Your task to perform on an android device: Search for the best websites on the internet Image 0: 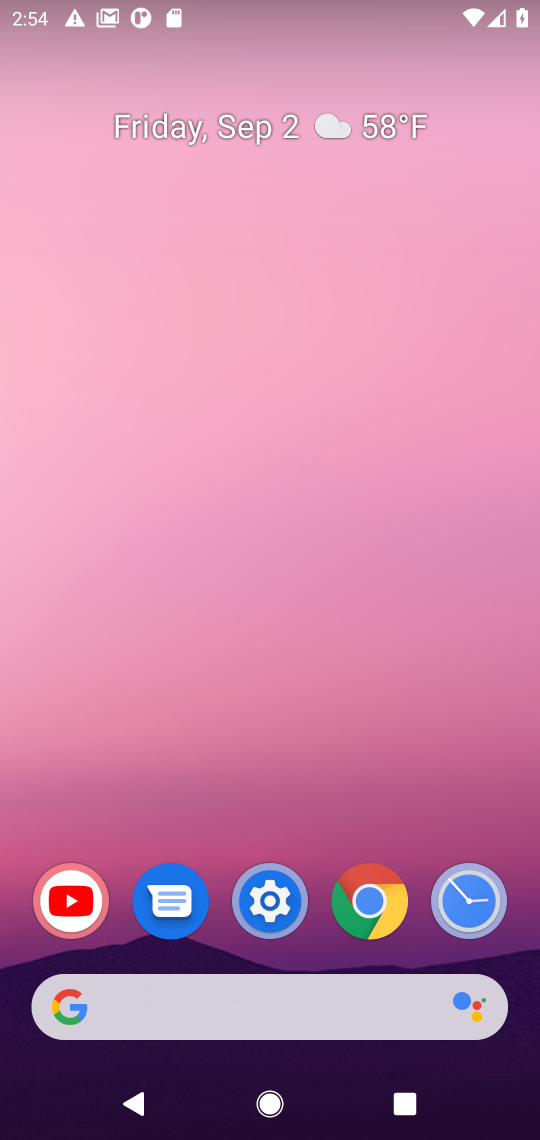
Step 0: drag from (279, 787) to (416, 0)
Your task to perform on an android device: Search for the best websites on the internet Image 1: 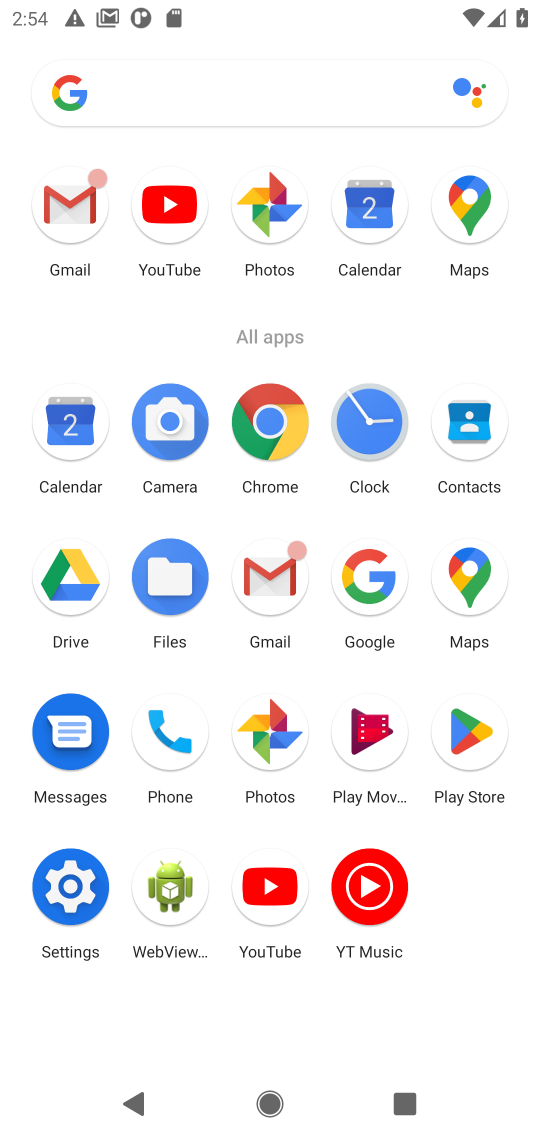
Step 1: click (255, 417)
Your task to perform on an android device: Search for the best websites on the internet Image 2: 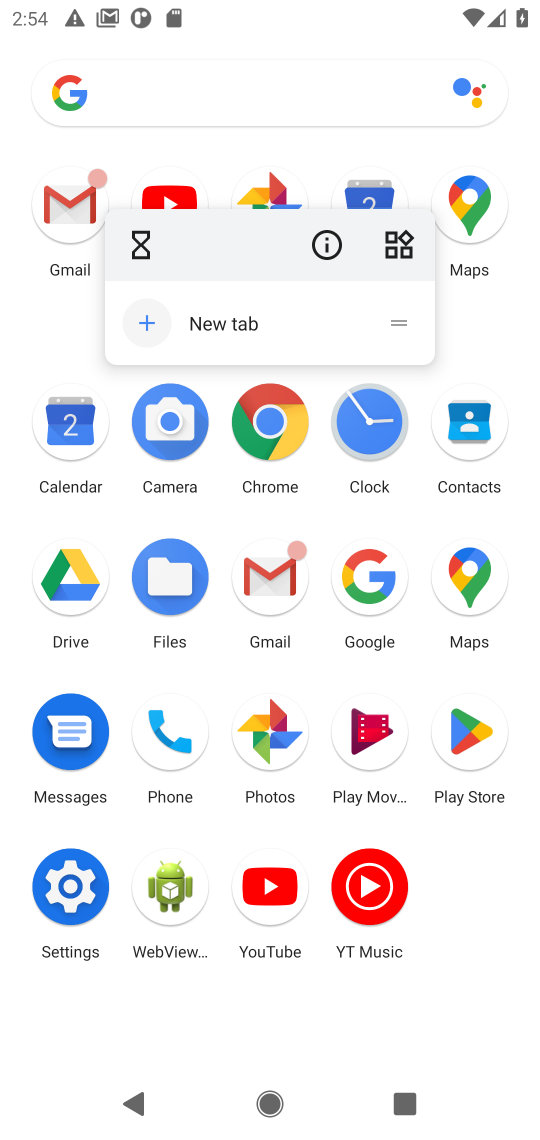
Step 2: click (280, 422)
Your task to perform on an android device: Search for the best websites on the internet Image 3: 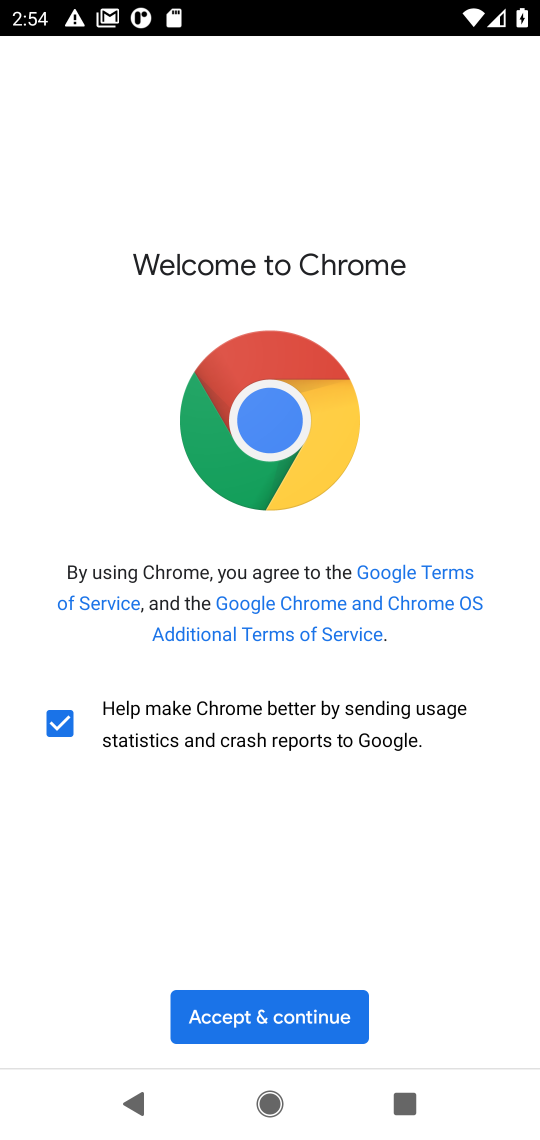
Step 3: click (313, 1012)
Your task to perform on an android device: Search for the best websites on the internet Image 4: 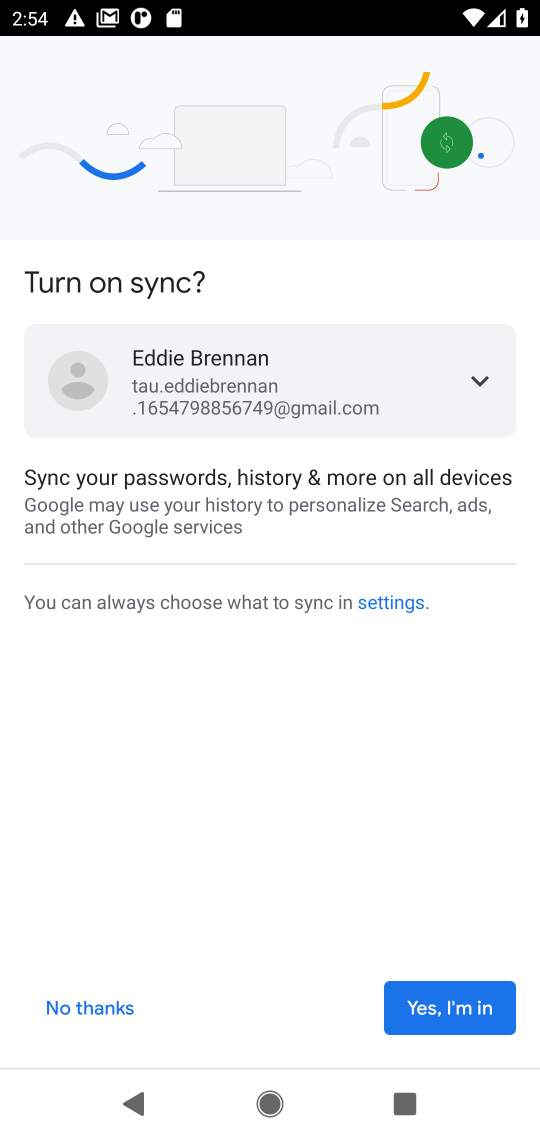
Step 4: click (480, 999)
Your task to perform on an android device: Search for the best websites on the internet Image 5: 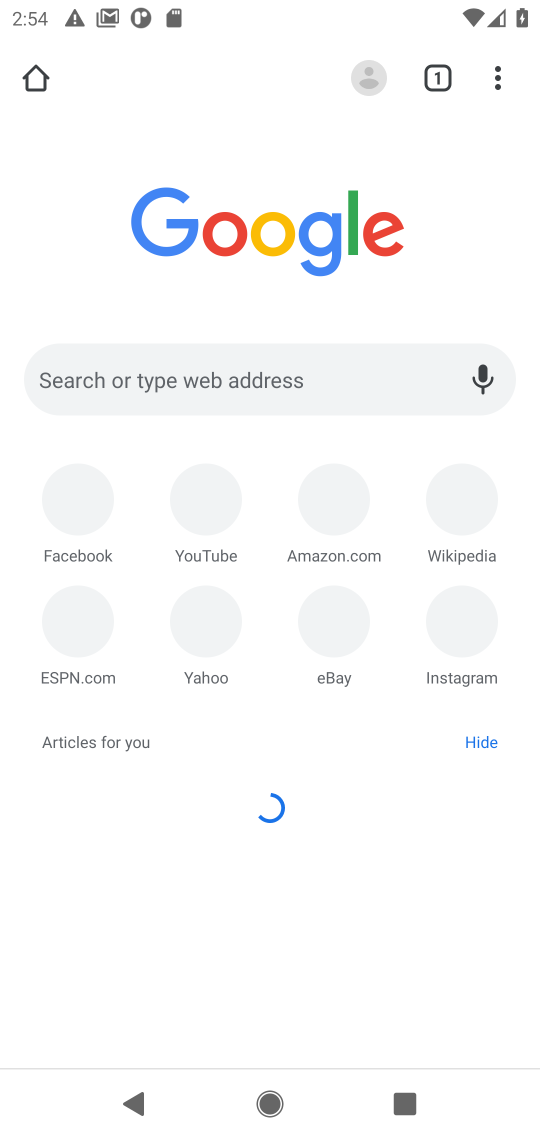
Step 5: click (291, 379)
Your task to perform on an android device: Search for the best websites on the internet Image 6: 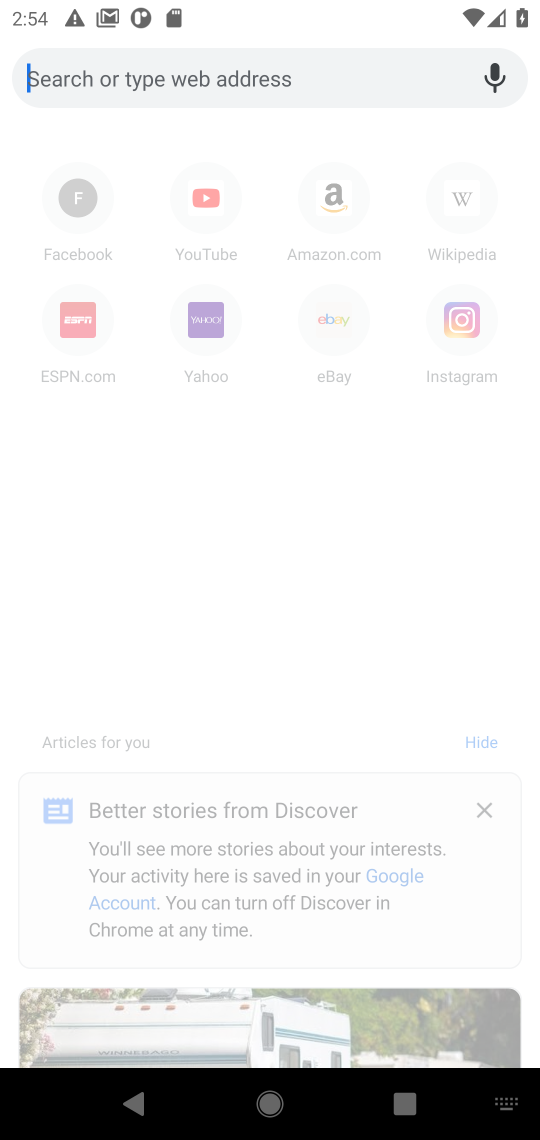
Step 6: type "best website on the internet"
Your task to perform on an android device: Search for the best websites on the internet Image 7: 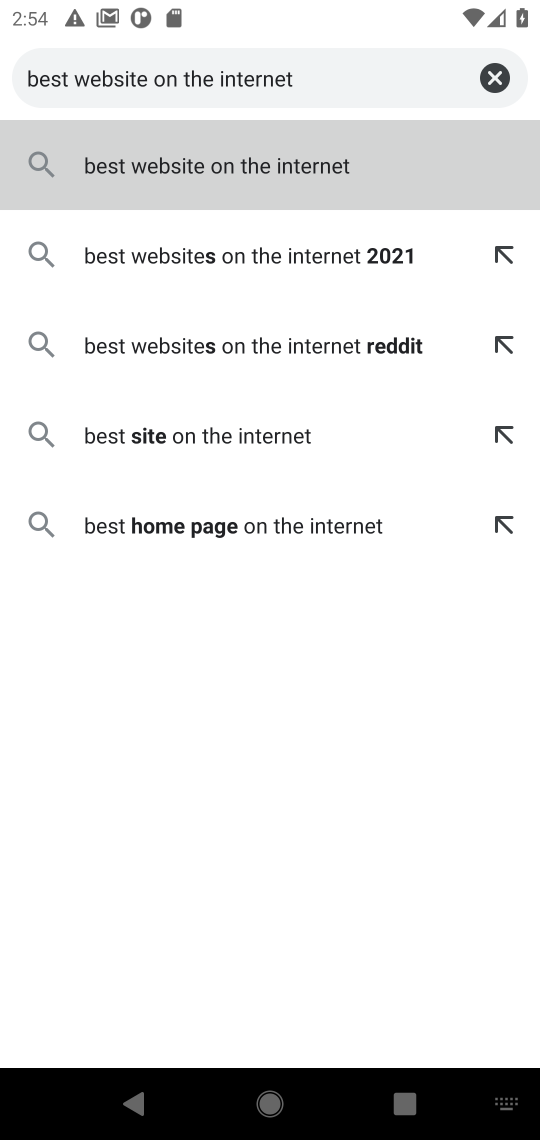
Step 7: press enter
Your task to perform on an android device: Search for the best websites on the internet Image 8: 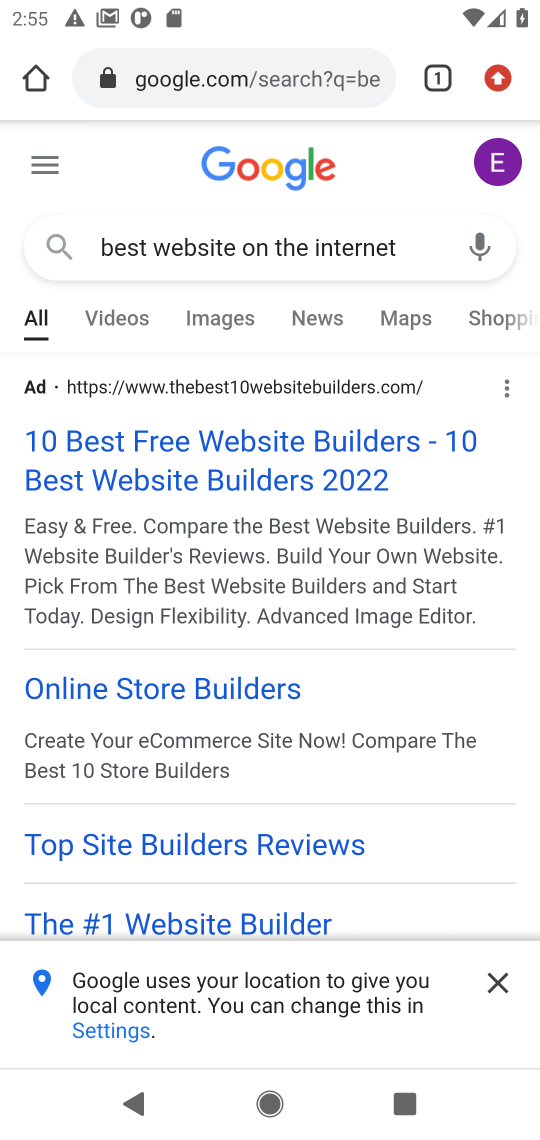
Step 8: drag from (351, 687) to (406, 149)
Your task to perform on an android device: Search for the best websites on the internet Image 9: 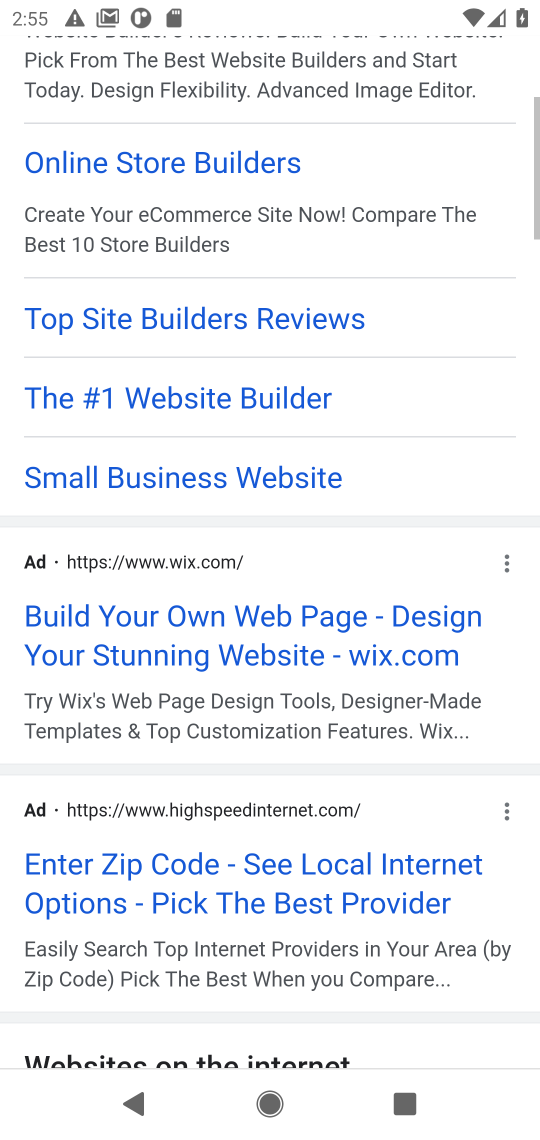
Step 9: click (265, 141)
Your task to perform on an android device: Search for the best websites on the internet Image 10: 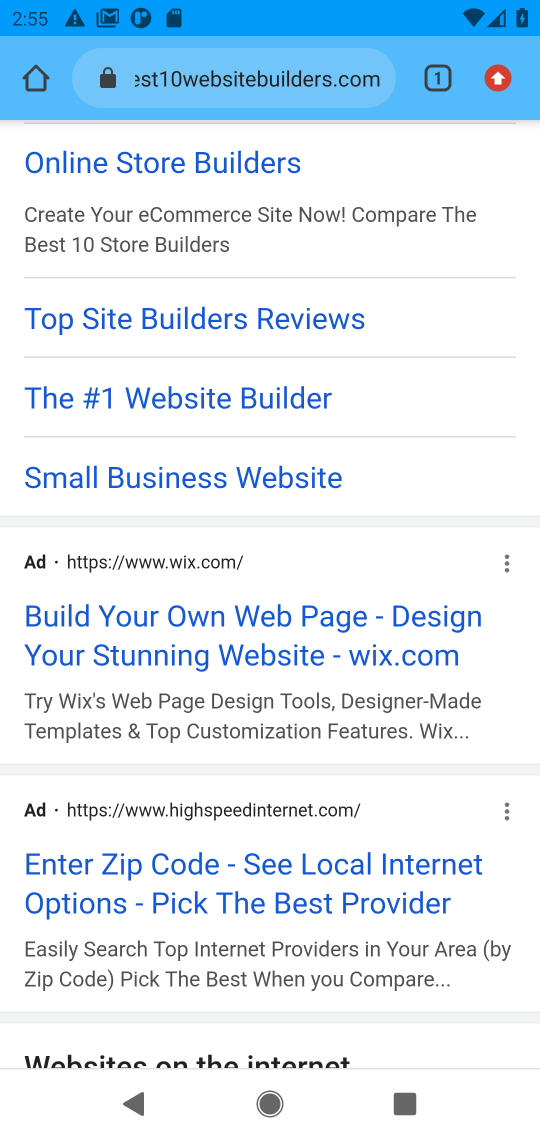
Step 10: drag from (239, 659) to (328, 75)
Your task to perform on an android device: Search for the best websites on the internet Image 11: 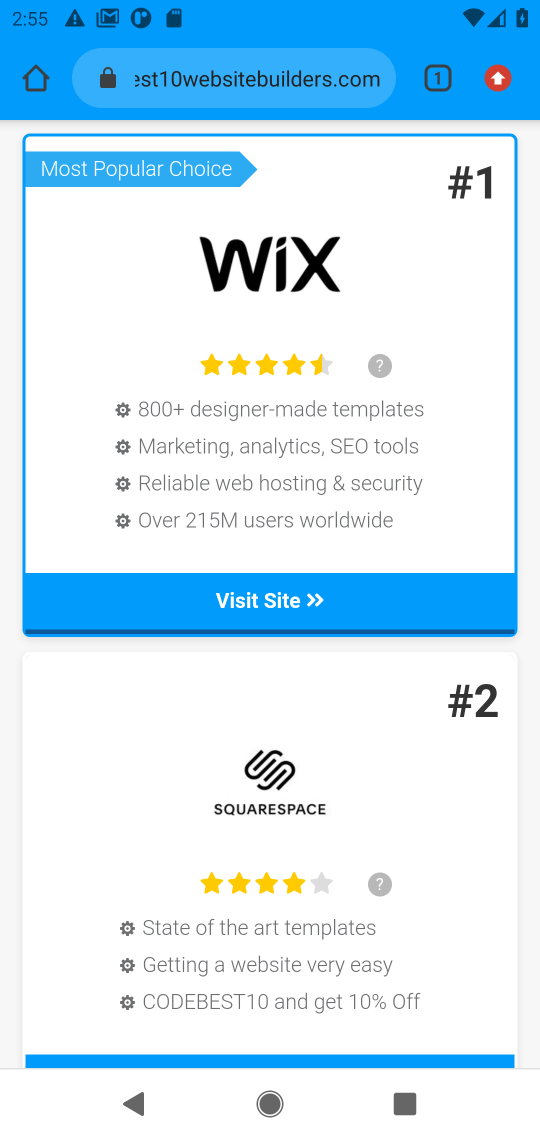
Step 11: drag from (327, 214) to (319, 1068)
Your task to perform on an android device: Search for the best websites on the internet Image 12: 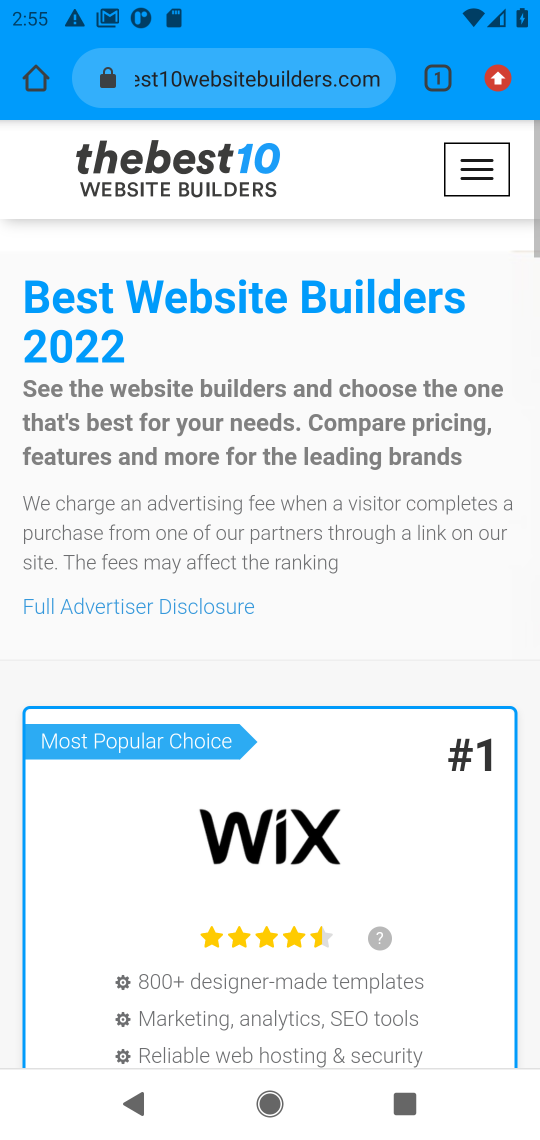
Step 12: drag from (308, 313) to (358, 624)
Your task to perform on an android device: Search for the best websites on the internet Image 13: 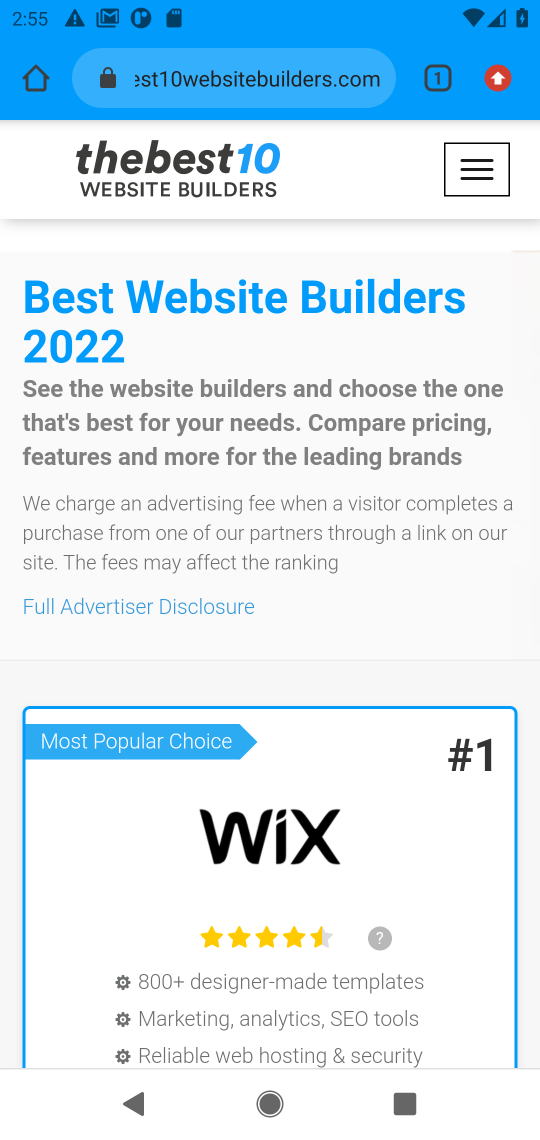
Step 13: drag from (366, 595) to (449, 184)
Your task to perform on an android device: Search for the best websites on the internet Image 14: 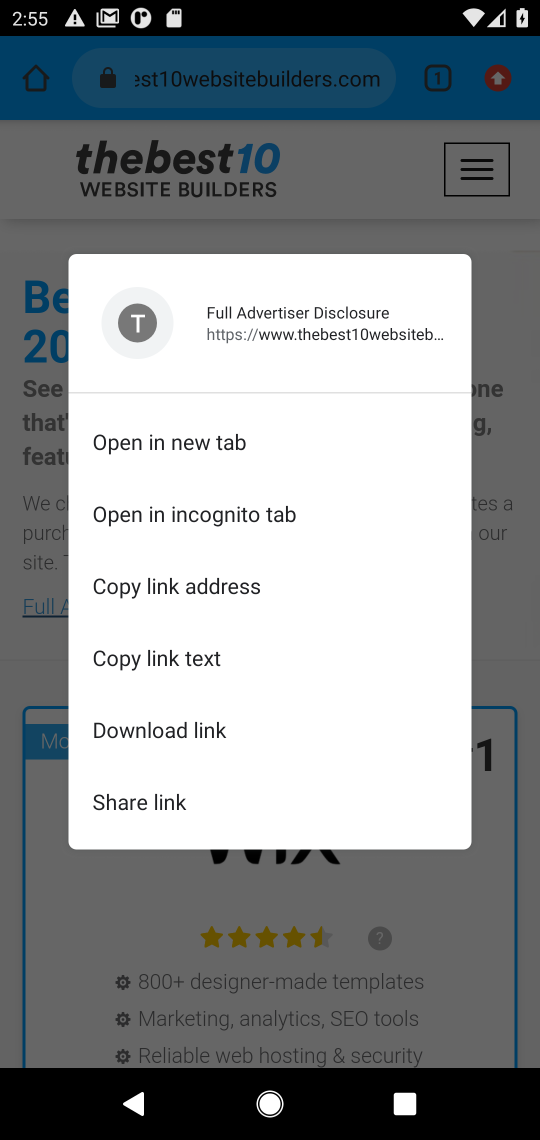
Step 14: click (522, 297)
Your task to perform on an android device: Search for the best websites on the internet Image 15: 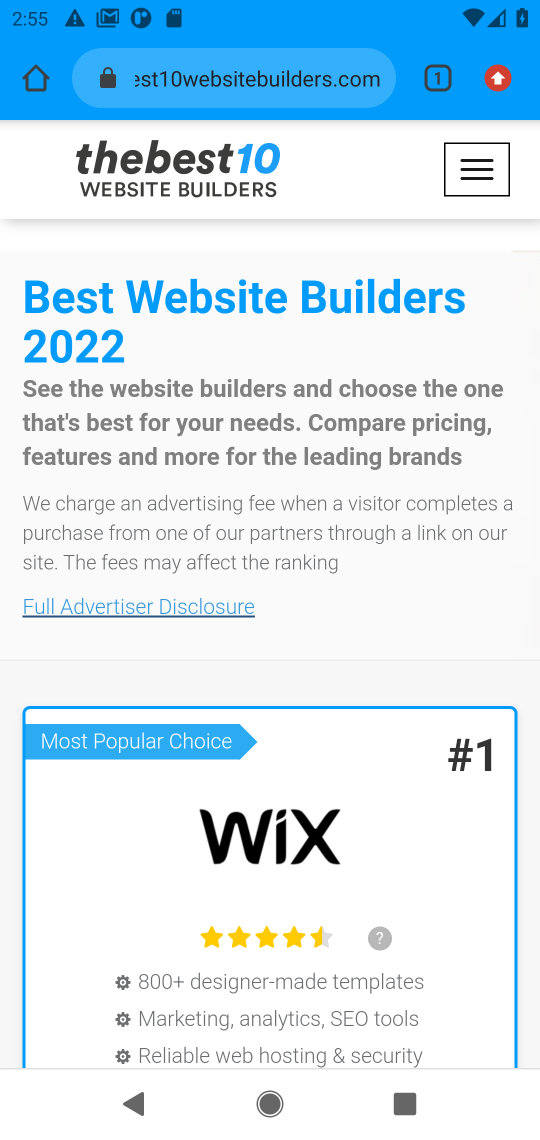
Step 15: drag from (391, 294) to (415, 169)
Your task to perform on an android device: Search for the best websites on the internet Image 16: 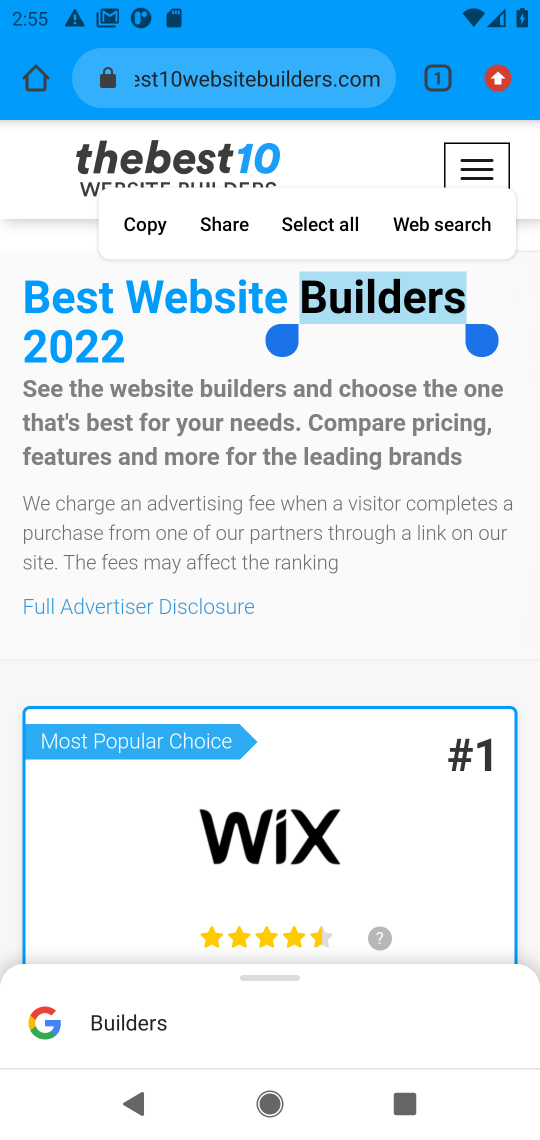
Step 16: click (335, 465)
Your task to perform on an android device: Search for the best websites on the internet Image 17: 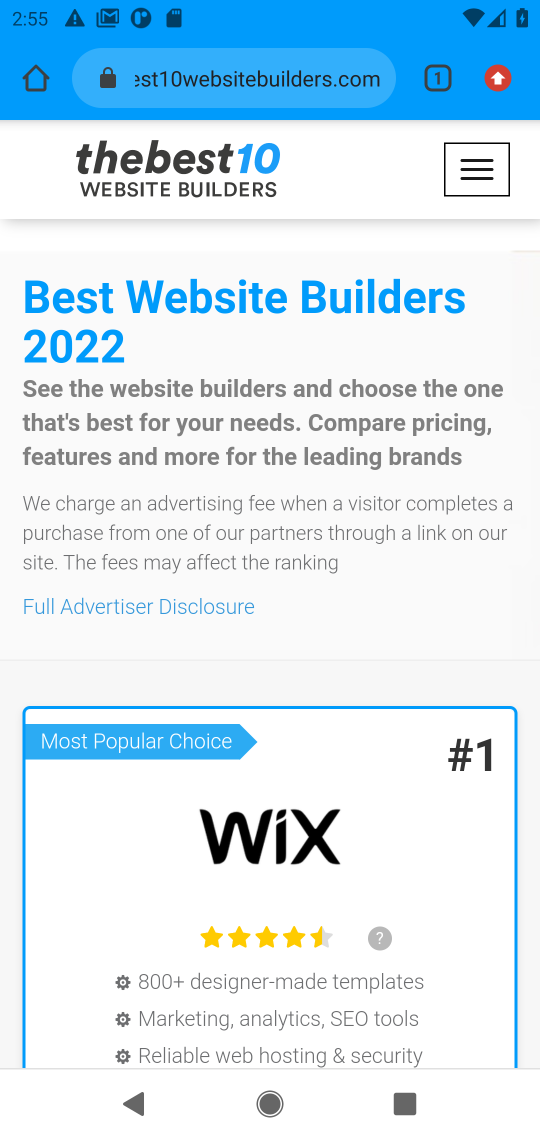
Step 17: drag from (272, 851) to (287, 32)
Your task to perform on an android device: Search for the best websites on the internet Image 18: 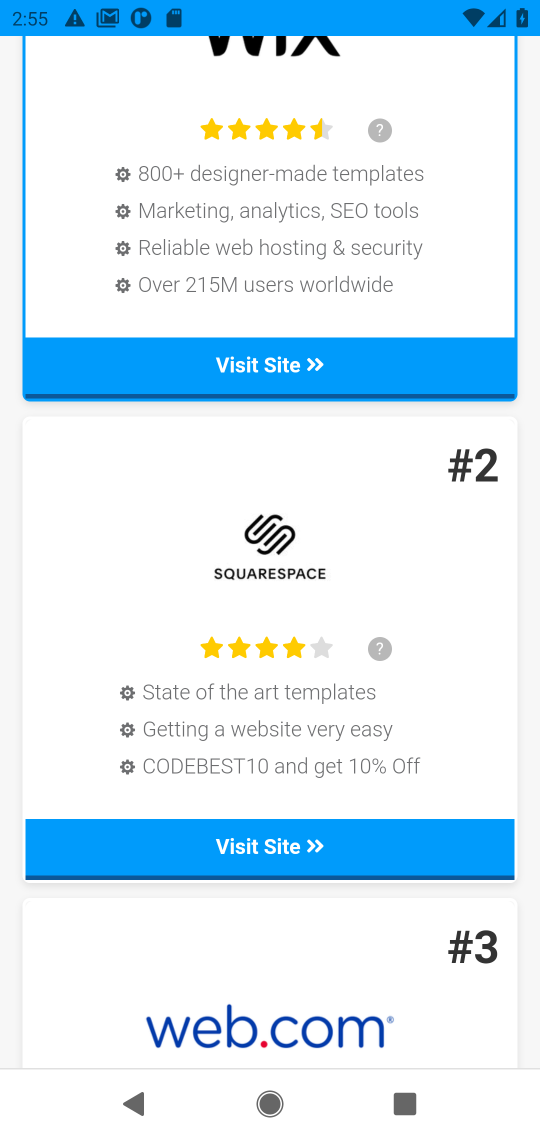
Step 18: press back button
Your task to perform on an android device: Search for the best websites on the internet Image 19: 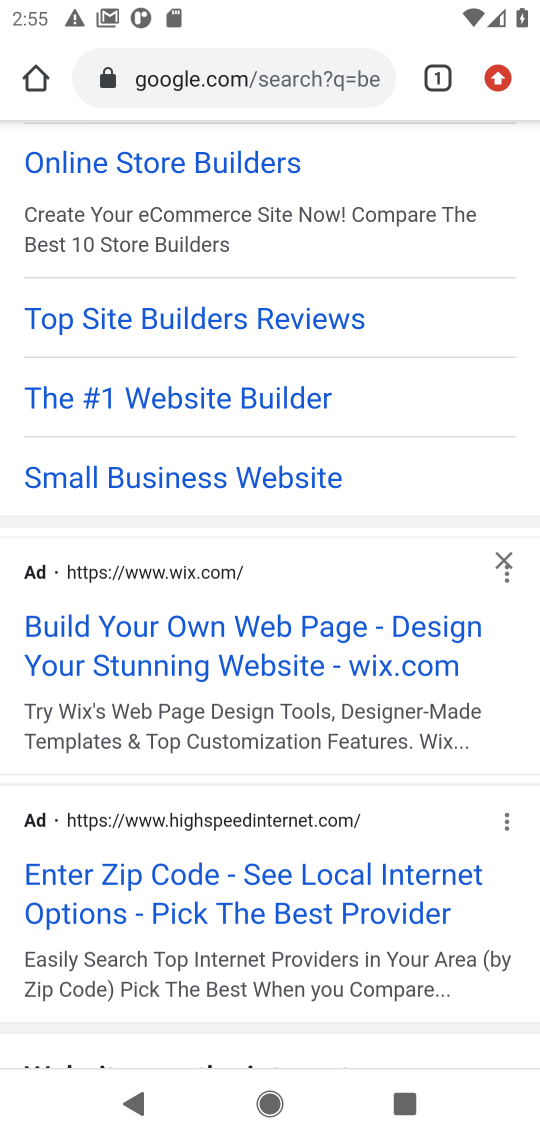
Step 19: drag from (338, 803) to (324, 75)
Your task to perform on an android device: Search for the best websites on the internet Image 20: 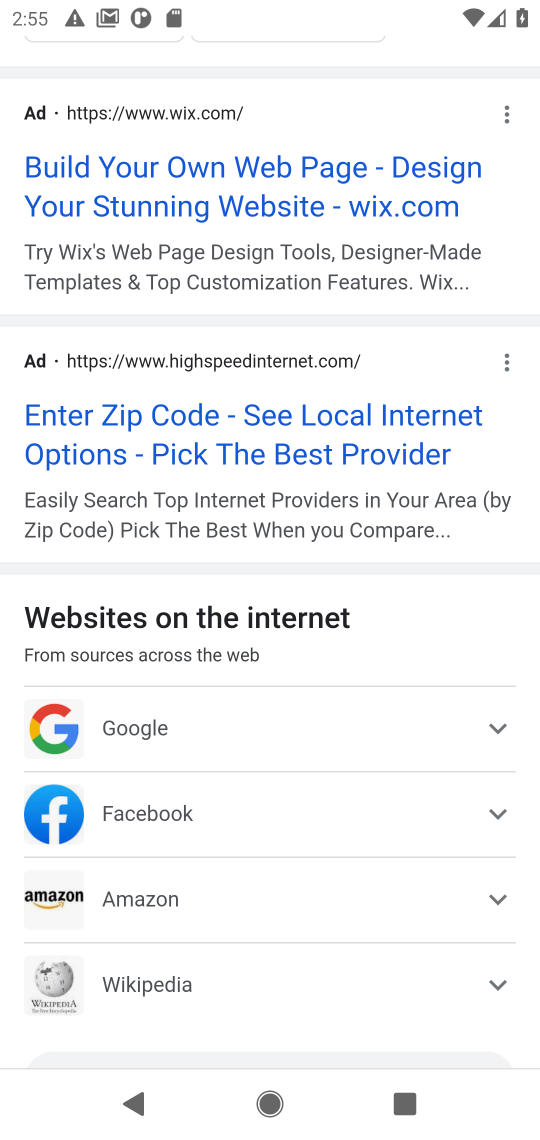
Step 20: drag from (290, 876) to (288, 258)
Your task to perform on an android device: Search for the best websites on the internet Image 21: 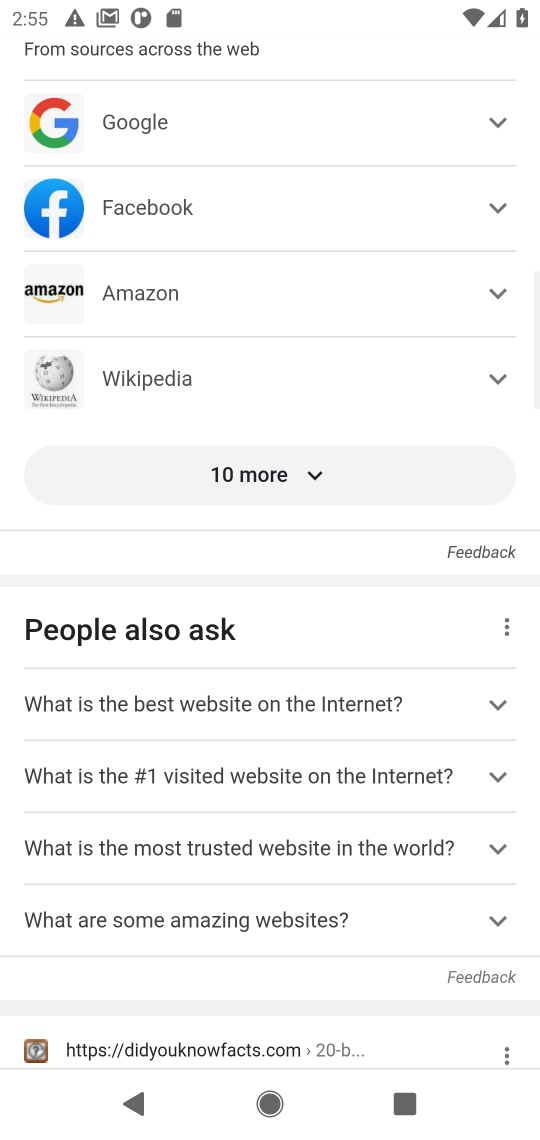
Step 21: click (296, 467)
Your task to perform on an android device: Search for the best websites on the internet Image 22: 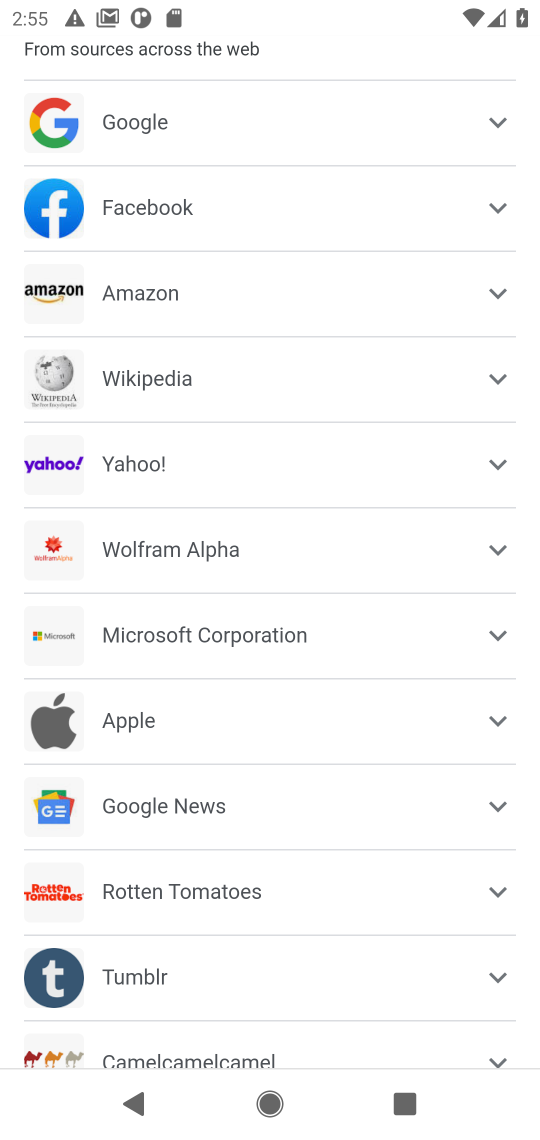
Step 22: task complete